Your task to perform on an android device: toggle sleep mode Image 0: 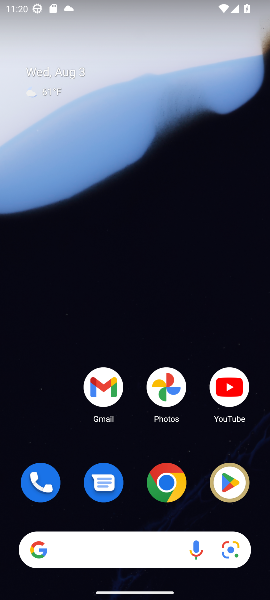
Step 0: drag from (133, 520) to (122, 198)
Your task to perform on an android device: toggle sleep mode Image 1: 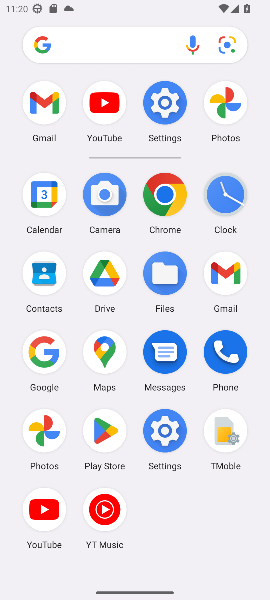
Step 1: click (161, 440)
Your task to perform on an android device: toggle sleep mode Image 2: 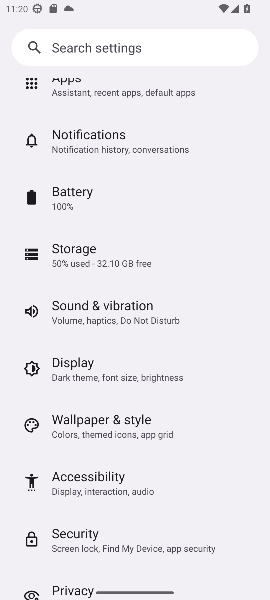
Step 2: click (104, 319)
Your task to perform on an android device: toggle sleep mode Image 3: 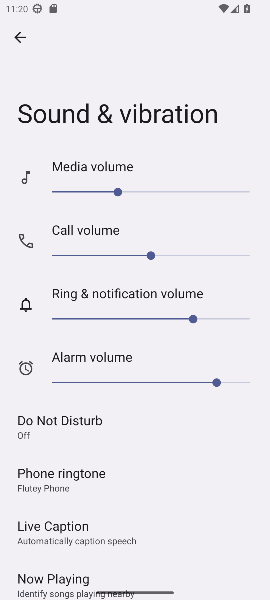
Step 3: task complete